Your task to perform on an android device: change notification settings in the gmail app Image 0: 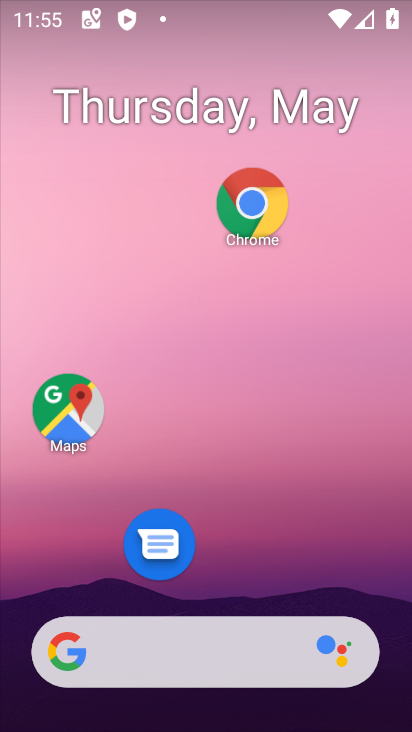
Step 0: drag from (218, 594) to (189, 10)
Your task to perform on an android device: change notification settings in the gmail app Image 1: 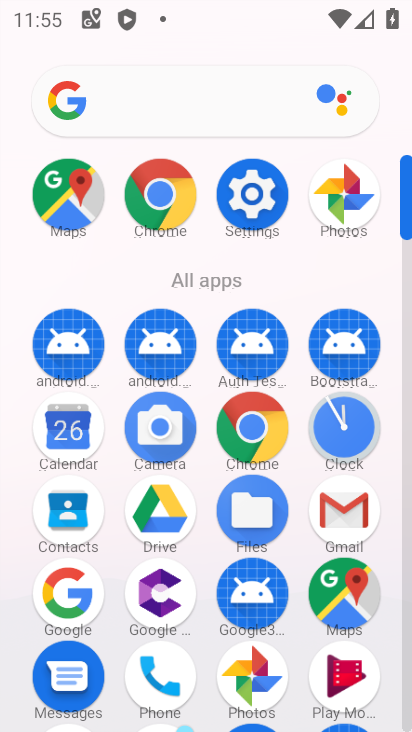
Step 1: click (351, 517)
Your task to perform on an android device: change notification settings in the gmail app Image 2: 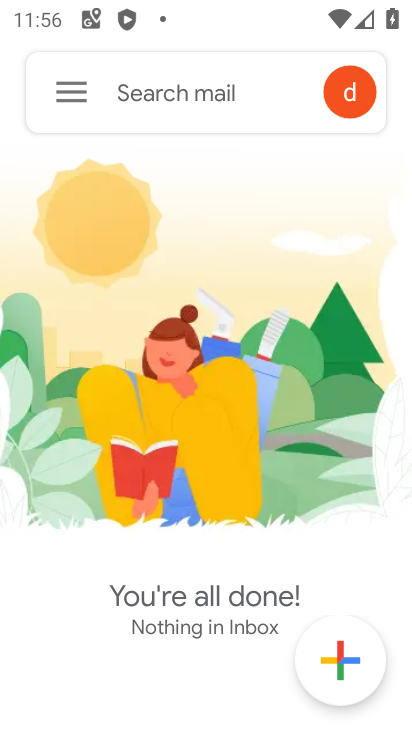
Step 2: click (48, 104)
Your task to perform on an android device: change notification settings in the gmail app Image 3: 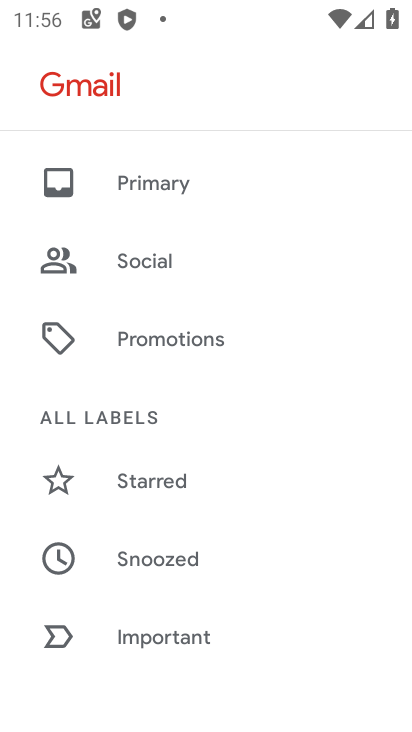
Step 3: drag from (181, 484) to (313, 25)
Your task to perform on an android device: change notification settings in the gmail app Image 4: 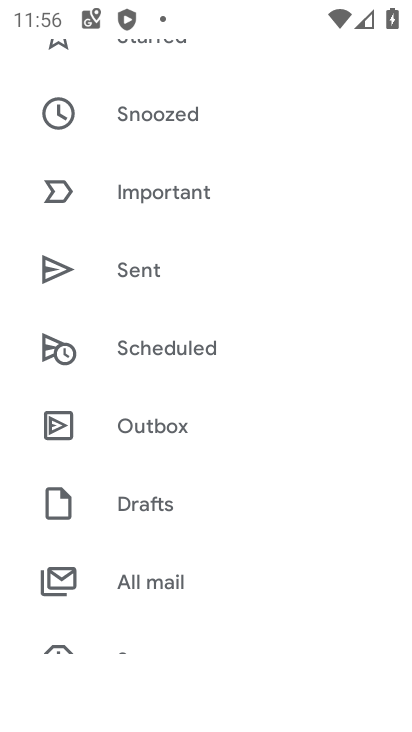
Step 4: drag from (190, 563) to (287, 60)
Your task to perform on an android device: change notification settings in the gmail app Image 5: 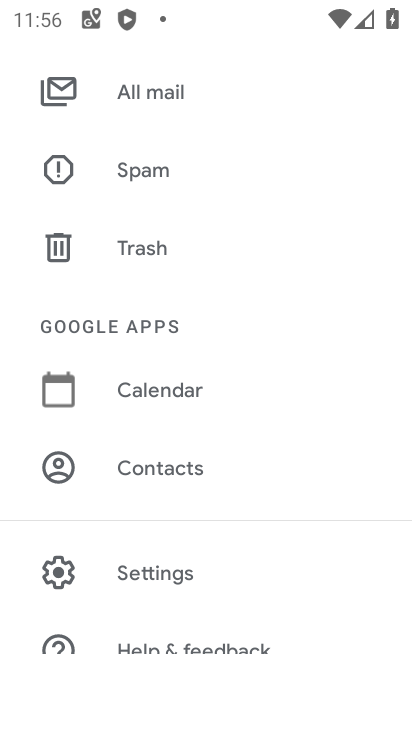
Step 5: click (166, 564)
Your task to perform on an android device: change notification settings in the gmail app Image 6: 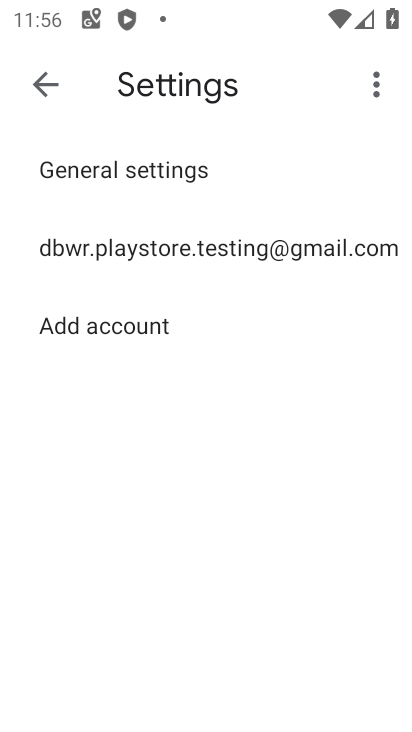
Step 6: click (131, 243)
Your task to perform on an android device: change notification settings in the gmail app Image 7: 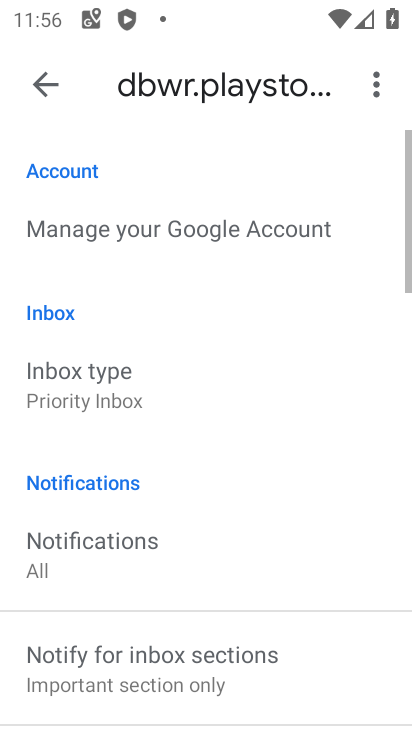
Step 7: drag from (162, 610) to (243, 201)
Your task to perform on an android device: change notification settings in the gmail app Image 8: 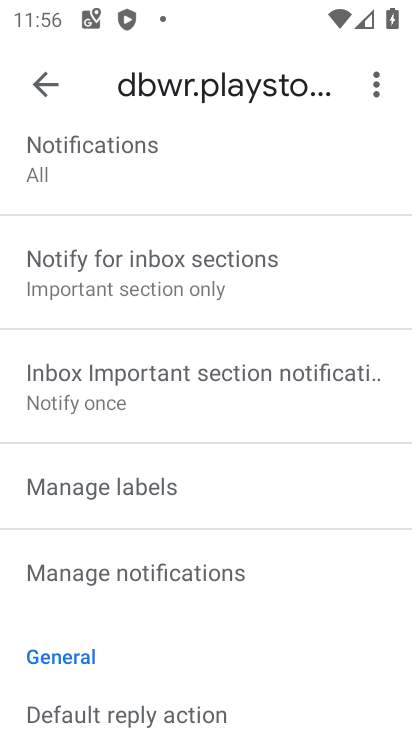
Step 8: click (129, 561)
Your task to perform on an android device: change notification settings in the gmail app Image 9: 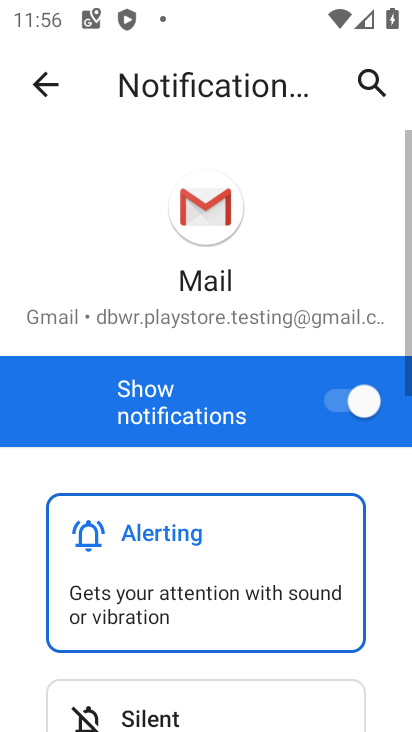
Step 9: drag from (189, 546) to (262, 97)
Your task to perform on an android device: change notification settings in the gmail app Image 10: 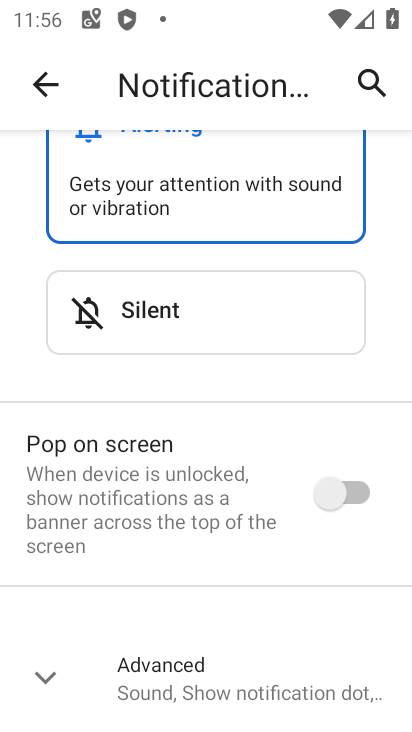
Step 10: drag from (248, 251) to (320, 620)
Your task to perform on an android device: change notification settings in the gmail app Image 11: 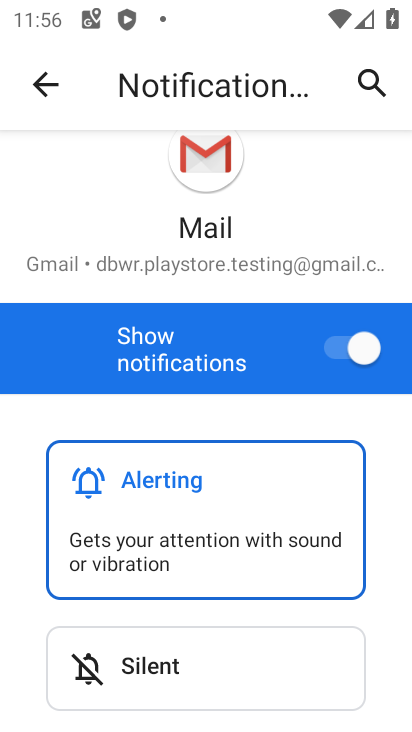
Step 11: click (343, 356)
Your task to perform on an android device: change notification settings in the gmail app Image 12: 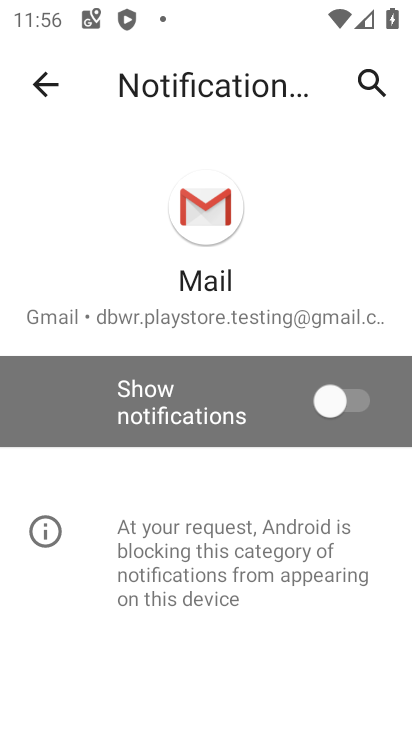
Step 12: task complete